Your task to perform on an android device: remove spam from my inbox in the gmail app Image 0: 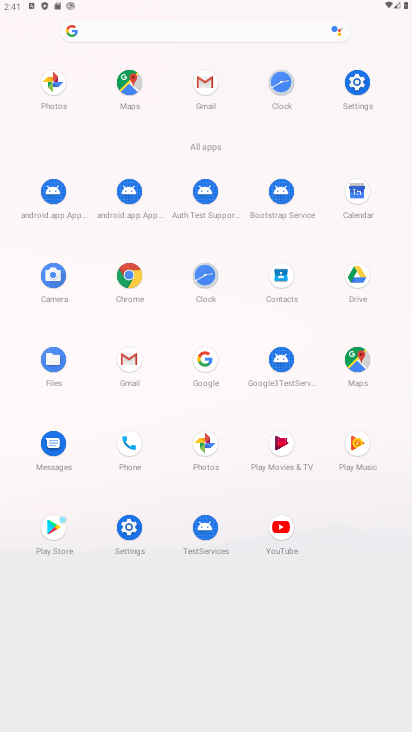
Step 0: click (127, 361)
Your task to perform on an android device: remove spam from my inbox in the gmail app Image 1: 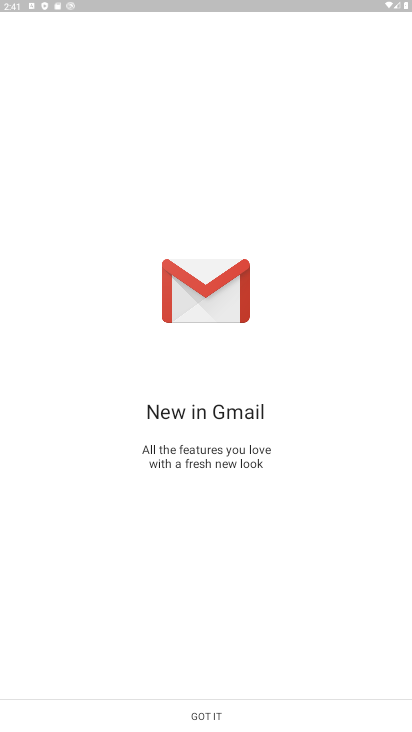
Step 1: click (202, 715)
Your task to perform on an android device: remove spam from my inbox in the gmail app Image 2: 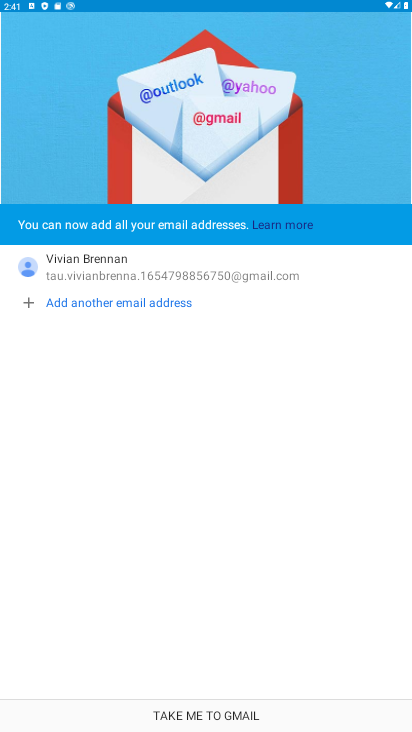
Step 2: click (230, 709)
Your task to perform on an android device: remove spam from my inbox in the gmail app Image 3: 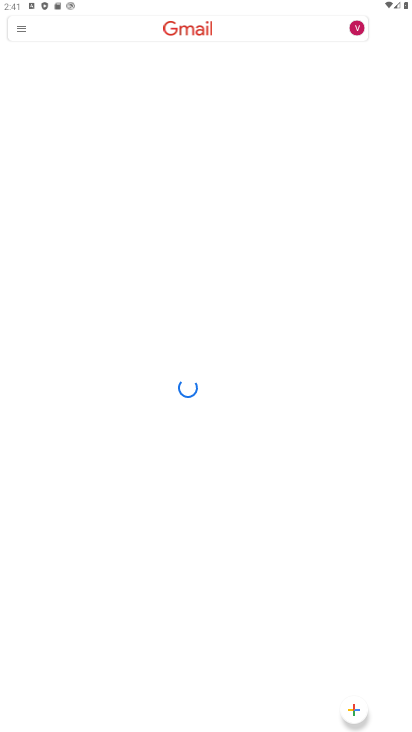
Step 3: click (21, 33)
Your task to perform on an android device: remove spam from my inbox in the gmail app Image 4: 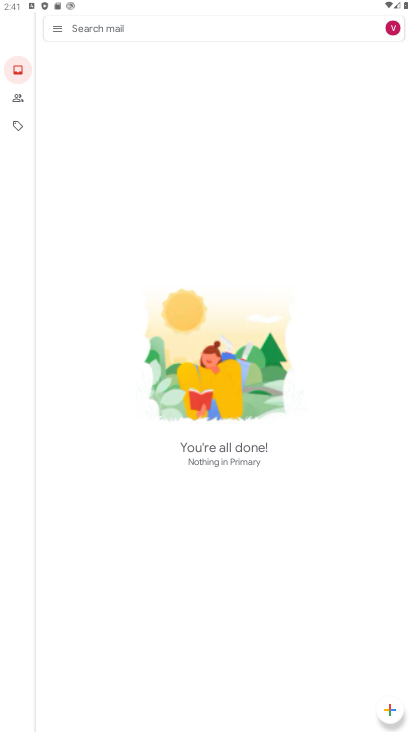
Step 4: click (57, 28)
Your task to perform on an android device: remove spam from my inbox in the gmail app Image 5: 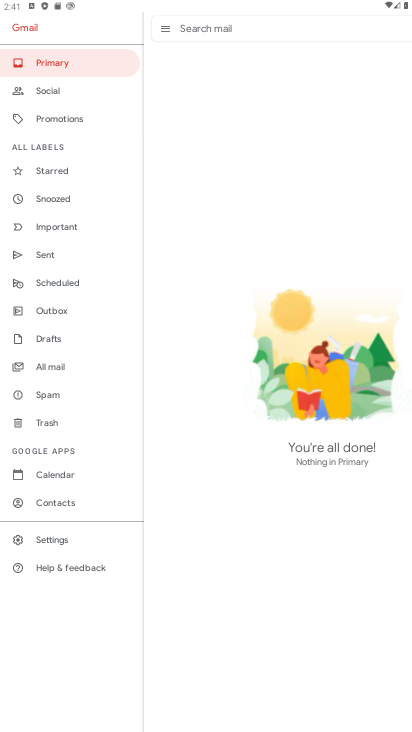
Step 5: click (44, 390)
Your task to perform on an android device: remove spam from my inbox in the gmail app Image 6: 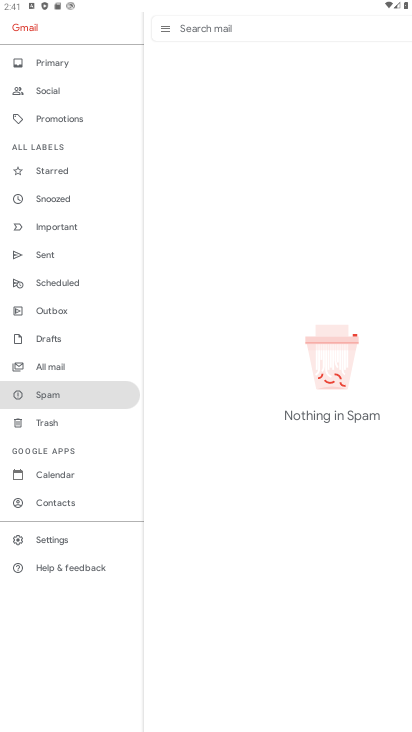
Step 6: task complete